Your task to perform on an android device: Open Google Maps and go to "Timeline" Image 0: 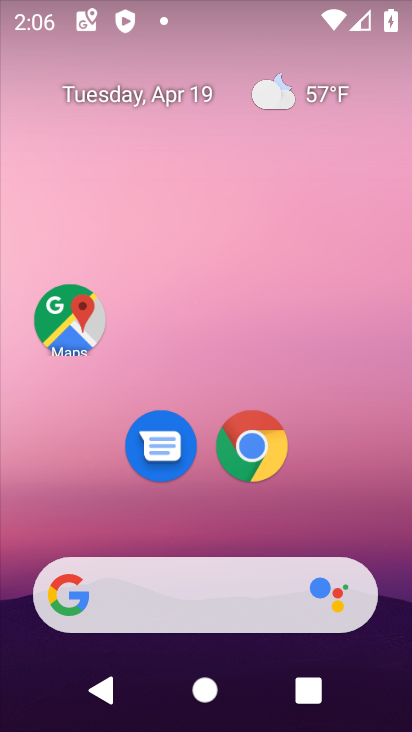
Step 0: drag from (365, 449) to (357, 65)
Your task to perform on an android device: Open Google Maps and go to "Timeline" Image 1: 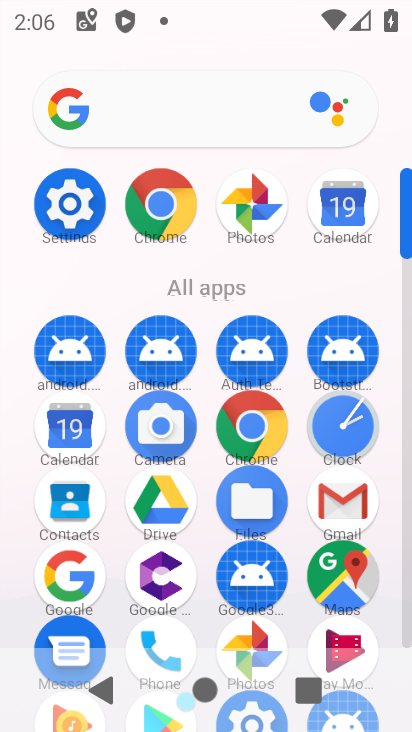
Step 1: drag from (379, 541) to (322, 259)
Your task to perform on an android device: Open Google Maps and go to "Timeline" Image 2: 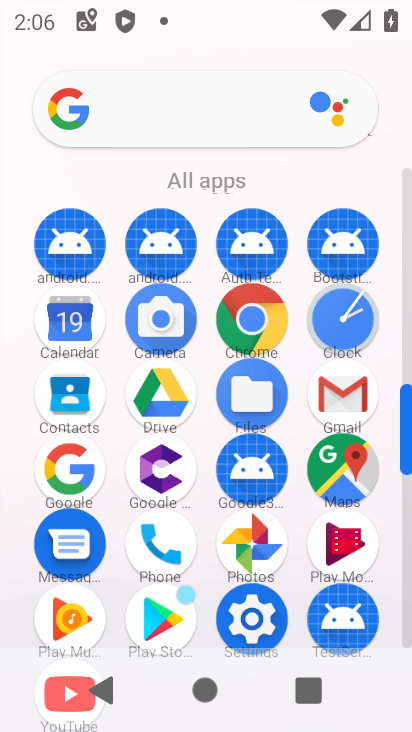
Step 2: click (347, 477)
Your task to perform on an android device: Open Google Maps and go to "Timeline" Image 3: 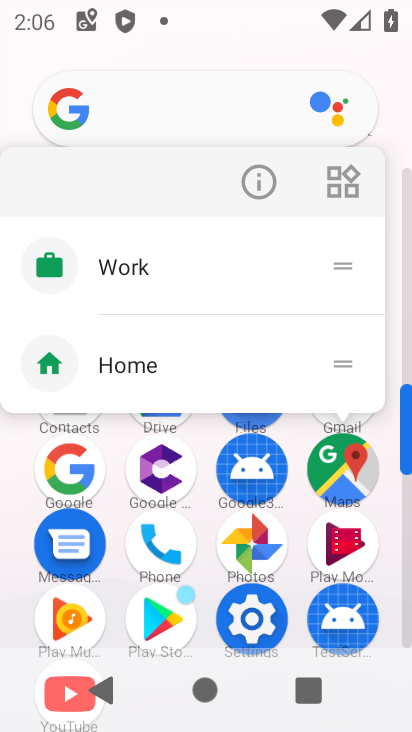
Step 3: click (334, 471)
Your task to perform on an android device: Open Google Maps and go to "Timeline" Image 4: 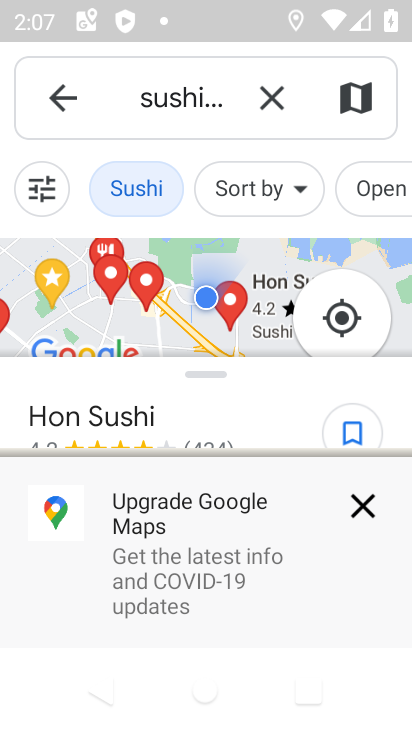
Step 4: click (49, 97)
Your task to perform on an android device: Open Google Maps and go to "Timeline" Image 5: 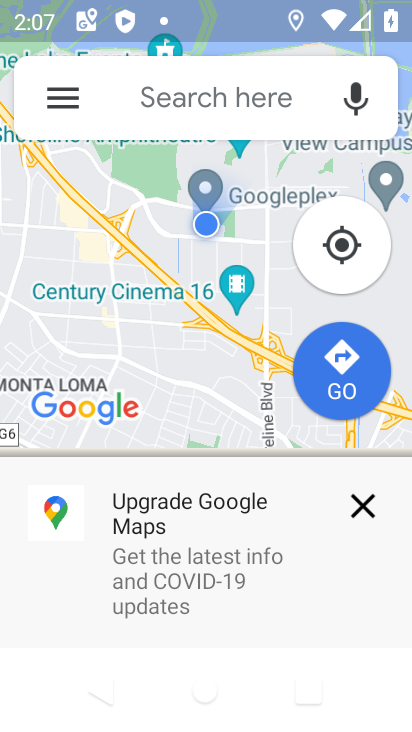
Step 5: click (53, 89)
Your task to perform on an android device: Open Google Maps and go to "Timeline" Image 6: 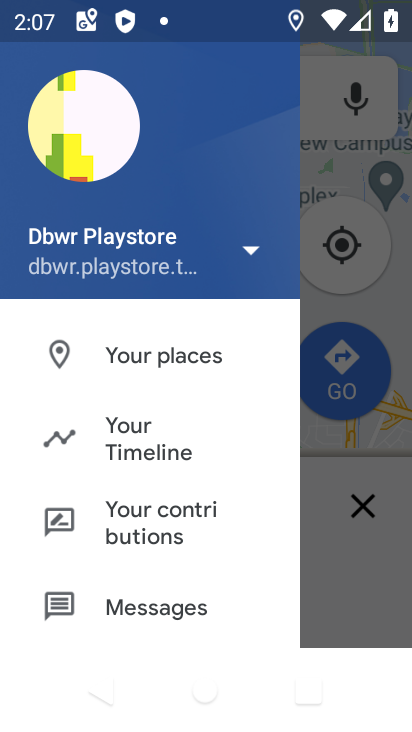
Step 6: click (177, 428)
Your task to perform on an android device: Open Google Maps and go to "Timeline" Image 7: 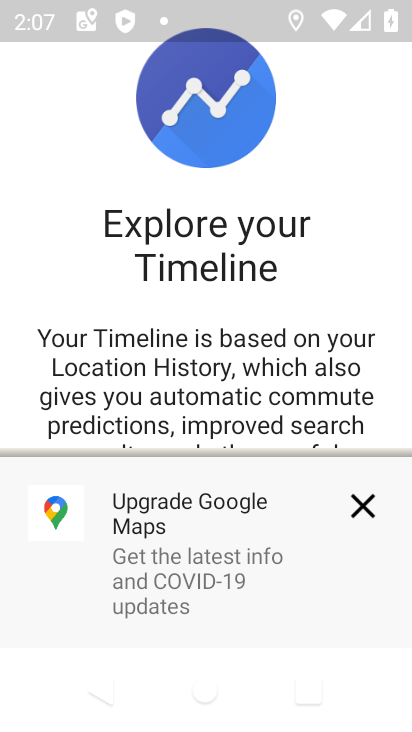
Step 7: click (354, 510)
Your task to perform on an android device: Open Google Maps and go to "Timeline" Image 8: 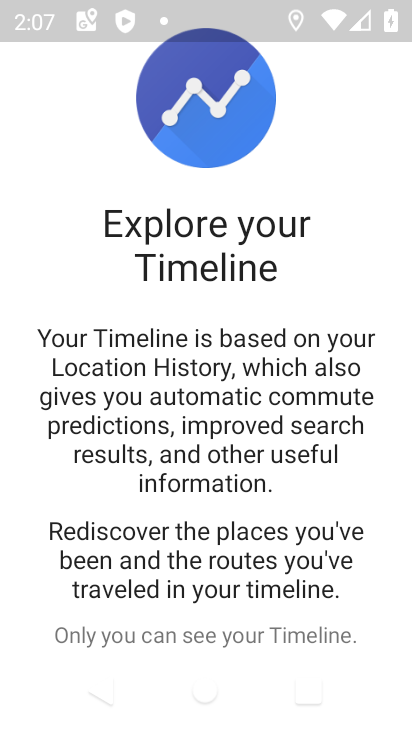
Step 8: task complete